Your task to perform on an android device: Search for vegetarian restaurants on Maps Image 0: 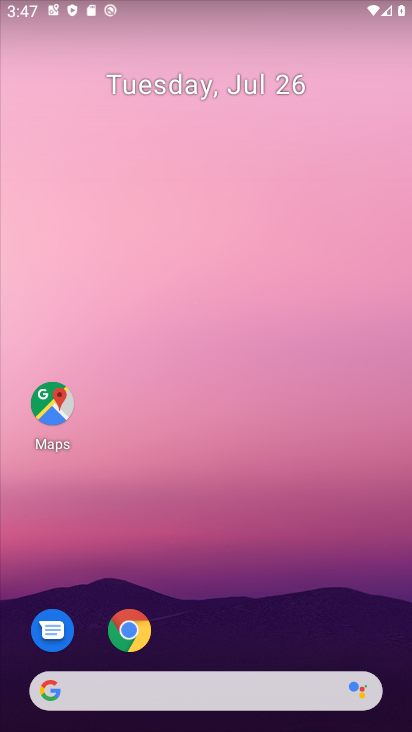
Step 0: click (45, 411)
Your task to perform on an android device: Search for vegetarian restaurants on Maps Image 1: 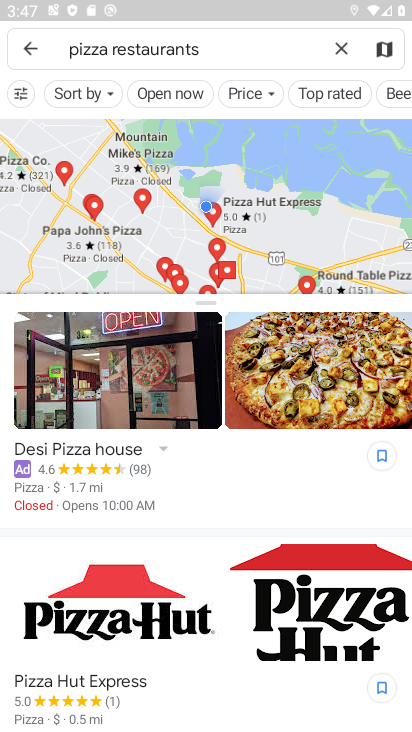
Step 1: click (340, 43)
Your task to perform on an android device: Search for vegetarian restaurants on Maps Image 2: 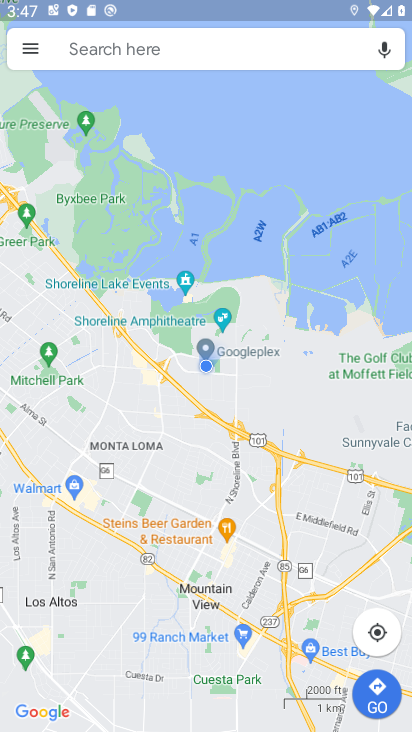
Step 2: click (279, 51)
Your task to perform on an android device: Search for vegetarian restaurants on Maps Image 3: 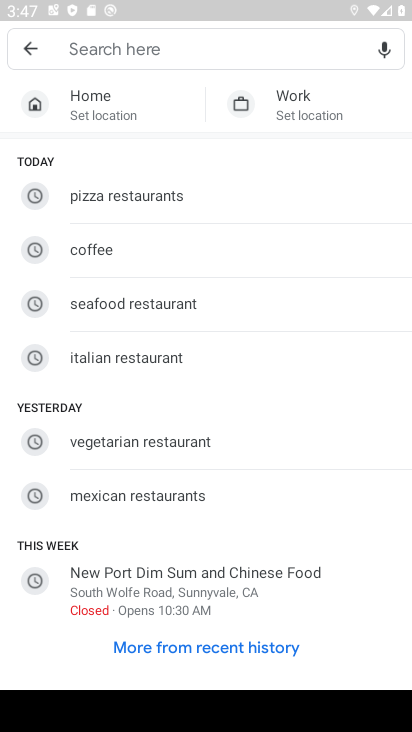
Step 3: click (240, 455)
Your task to perform on an android device: Search for vegetarian restaurants on Maps Image 4: 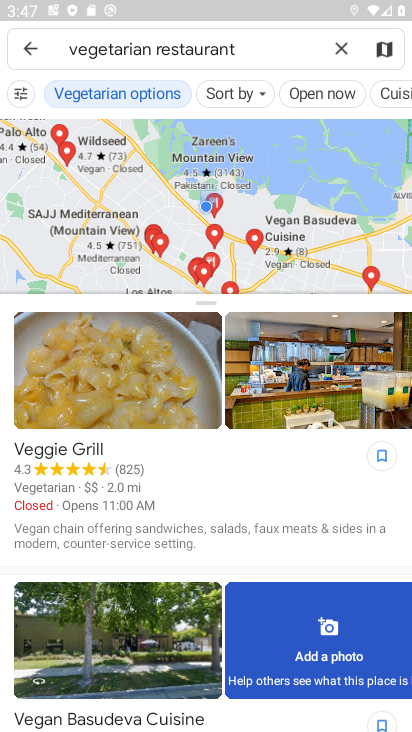
Step 4: task complete